Your task to perform on an android device: Go to wifi settings Image 0: 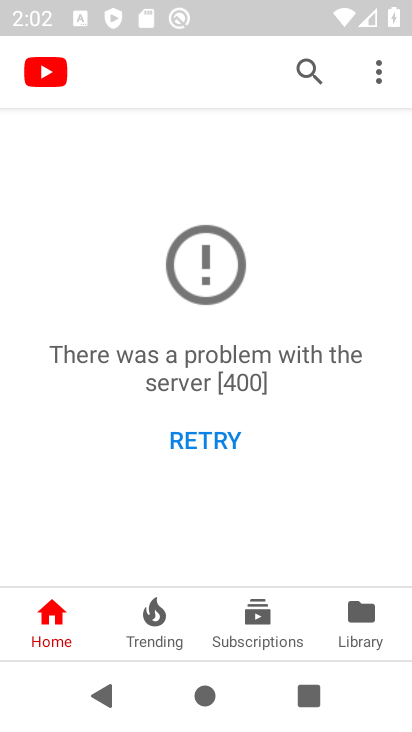
Step 0: press home button
Your task to perform on an android device: Go to wifi settings Image 1: 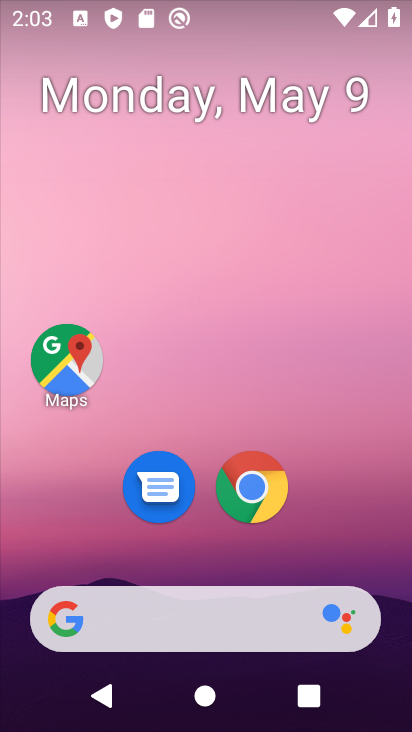
Step 1: drag from (328, 487) to (314, 35)
Your task to perform on an android device: Go to wifi settings Image 2: 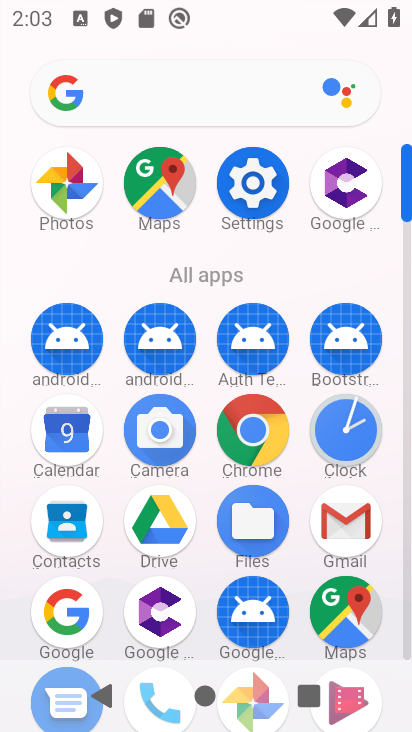
Step 2: click (268, 173)
Your task to perform on an android device: Go to wifi settings Image 3: 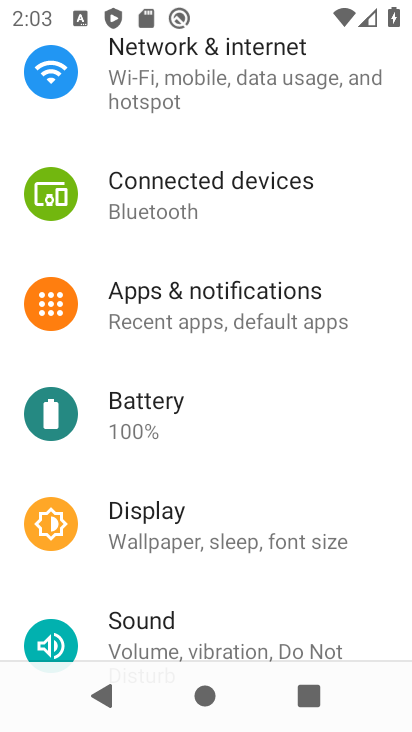
Step 3: click (264, 70)
Your task to perform on an android device: Go to wifi settings Image 4: 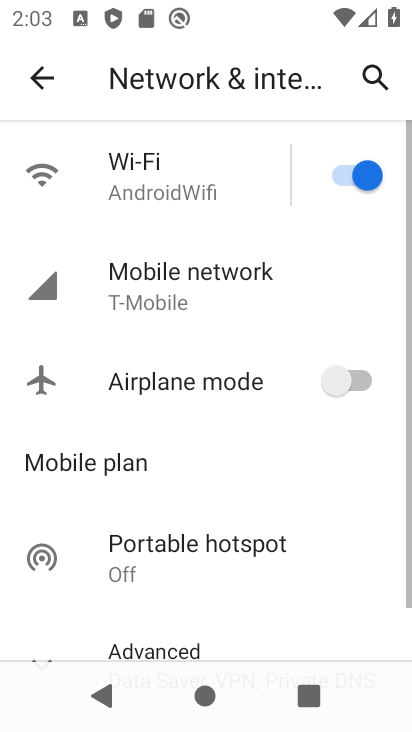
Step 4: click (159, 180)
Your task to perform on an android device: Go to wifi settings Image 5: 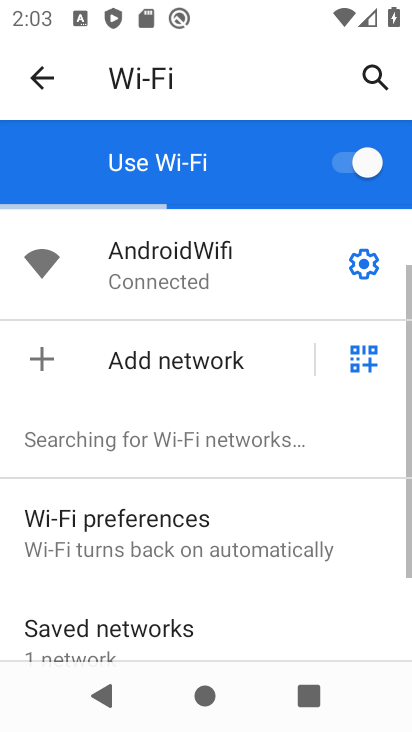
Step 5: task complete